Your task to perform on an android device: Go to location settings Image 0: 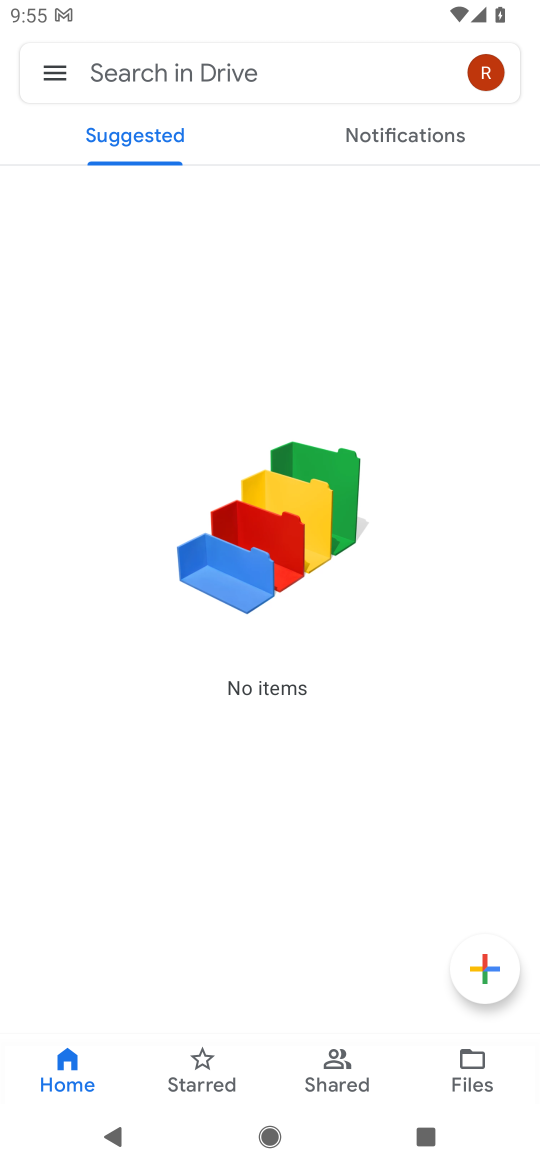
Step 0: press home button
Your task to perform on an android device: Go to location settings Image 1: 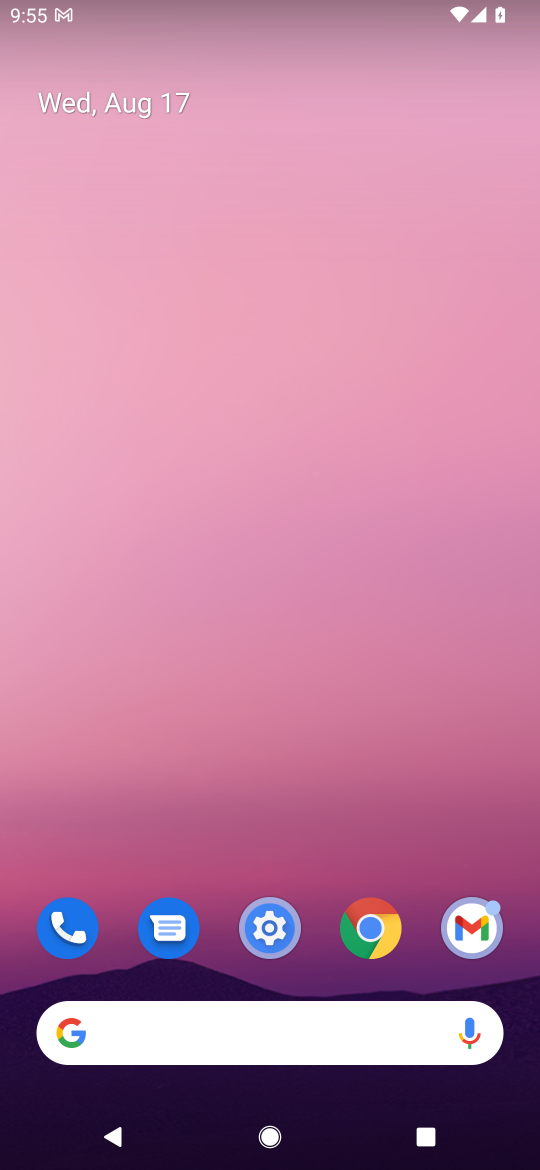
Step 1: drag from (511, 720) to (416, 254)
Your task to perform on an android device: Go to location settings Image 2: 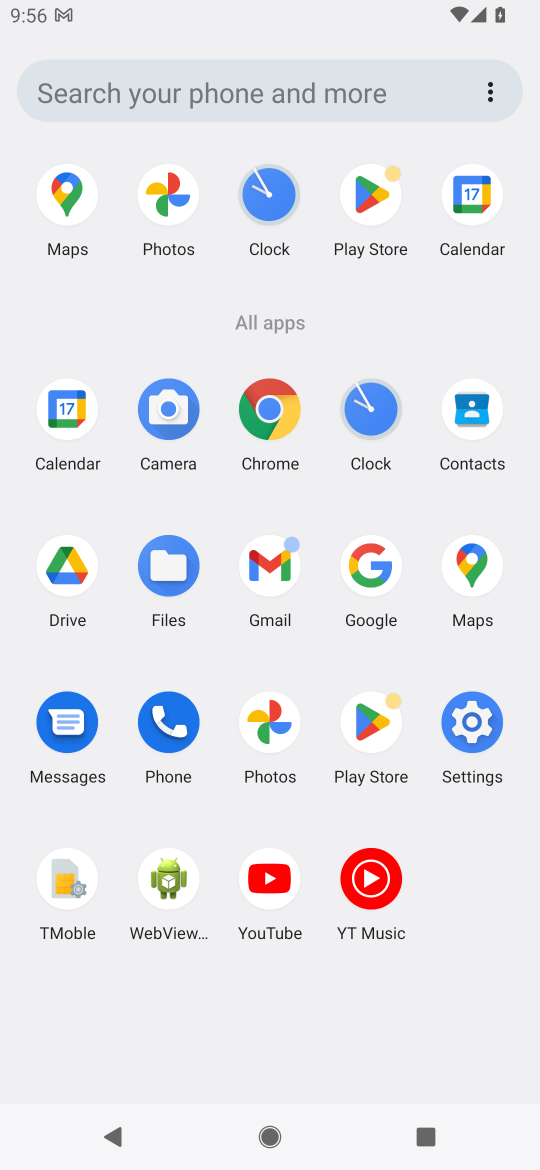
Step 2: click (483, 726)
Your task to perform on an android device: Go to location settings Image 3: 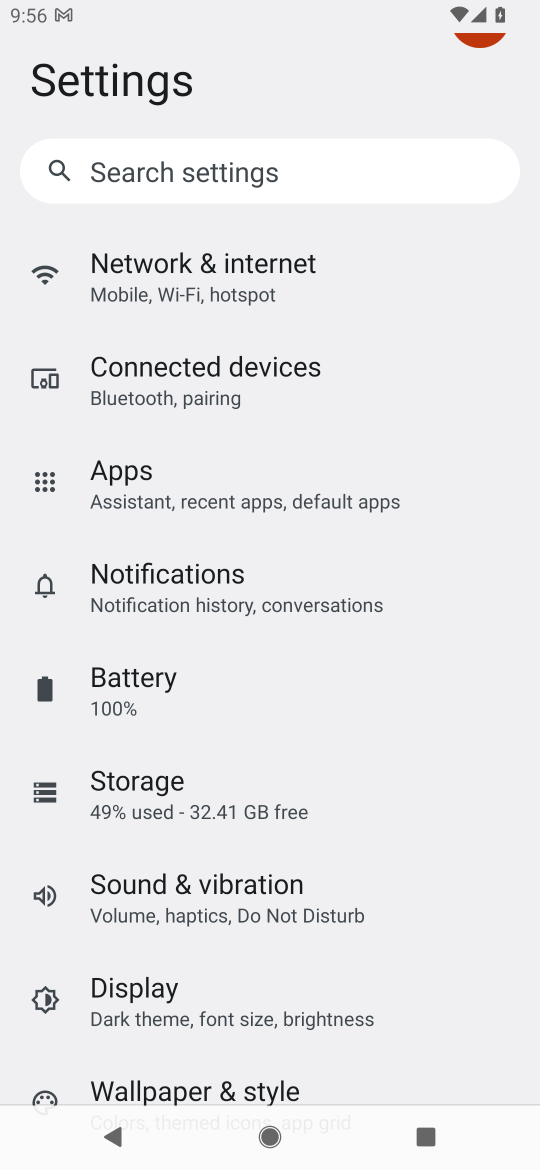
Step 3: drag from (315, 808) to (322, 244)
Your task to perform on an android device: Go to location settings Image 4: 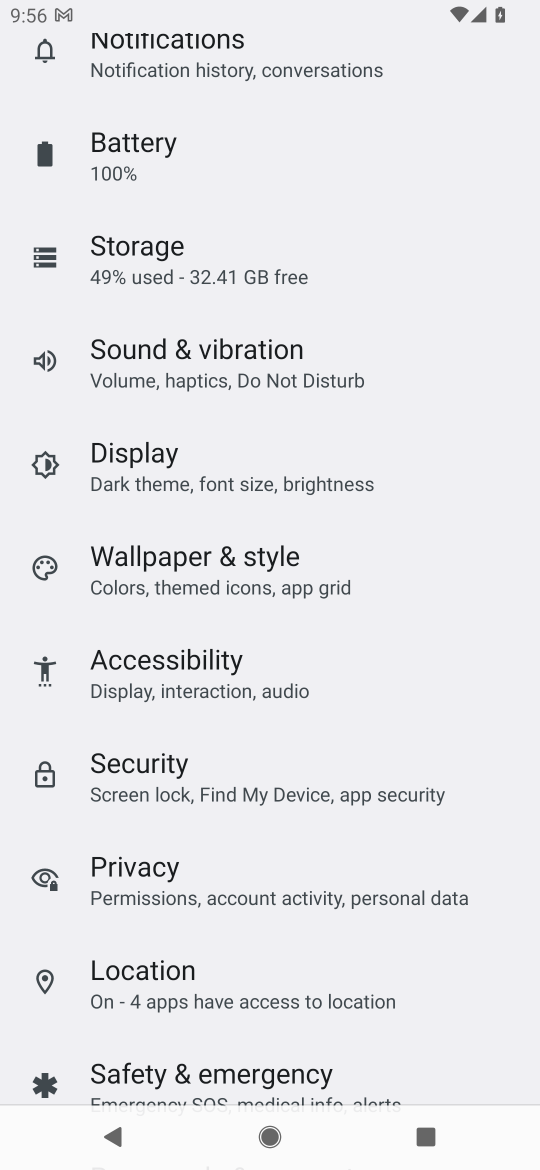
Step 4: click (253, 974)
Your task to perform on an android device: Go to location settings Image 5: 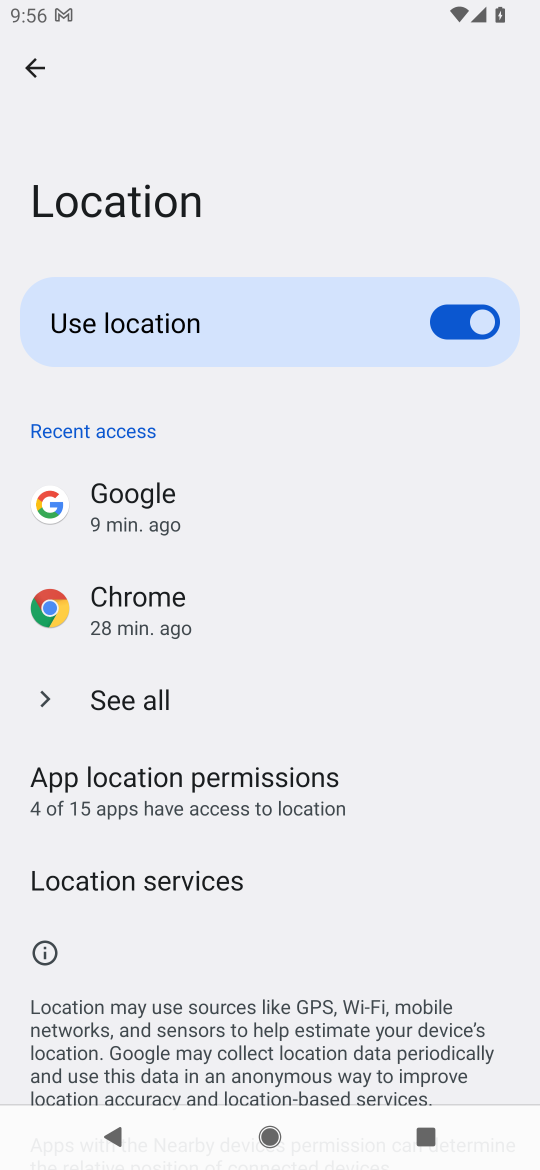
Step 5: task complete